Your task to perform on an android device: uninstall "PUBG MOBILE" Image 0: 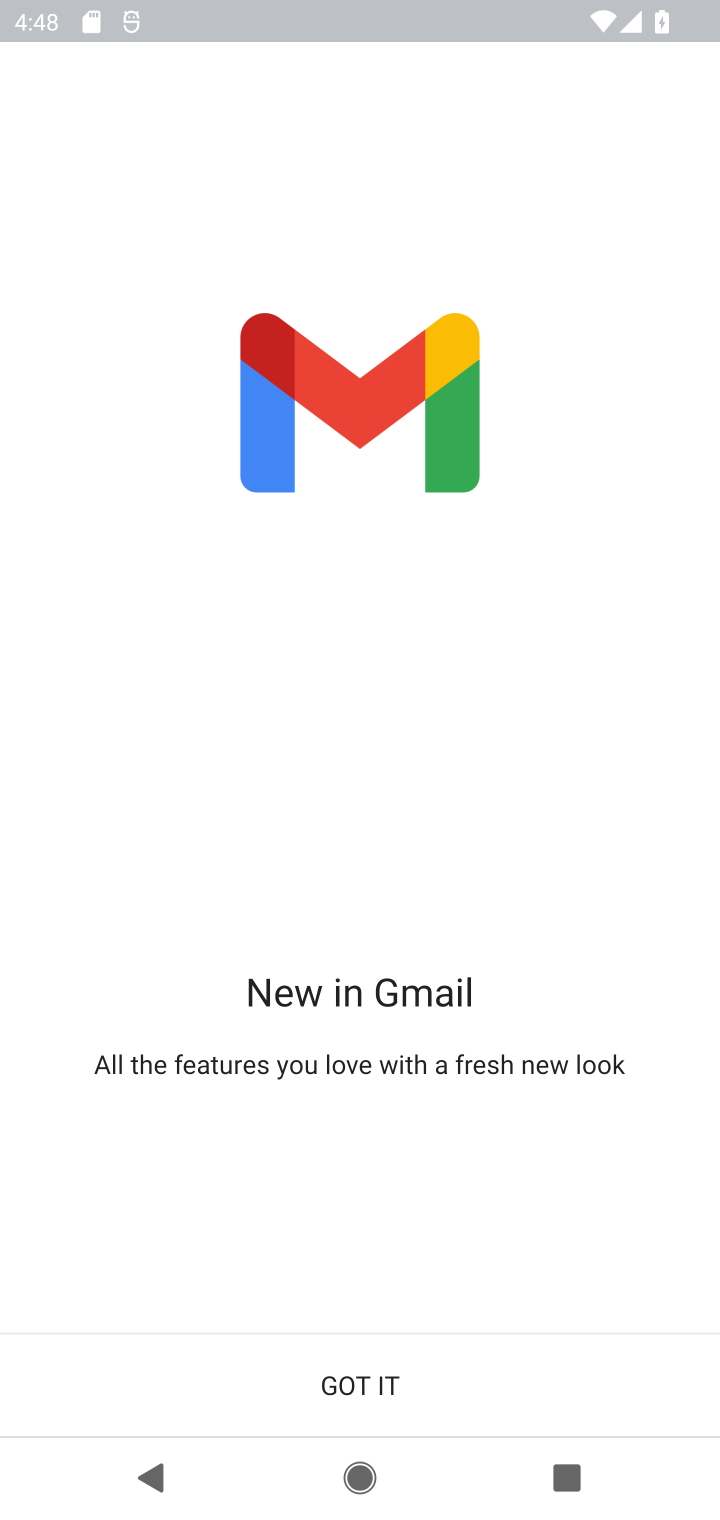
Step 0: press home button
Your task to perform on an android device: uninstall "PUBG MOBILE" Image 1: 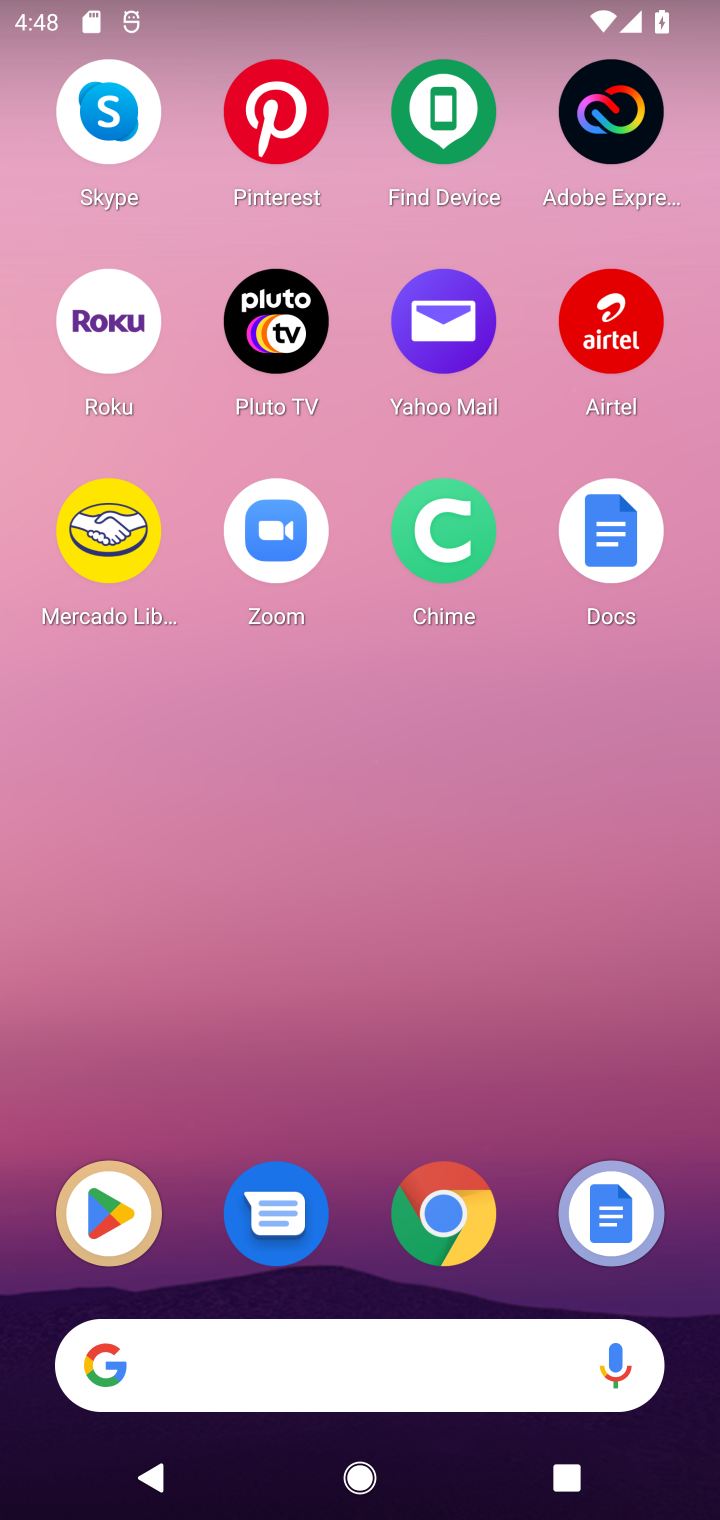
Step 1: drag from (577, 1063) to (426, 5)
Your task to perform on an android device: uninstall "PUBG MOBILE" Image 2: 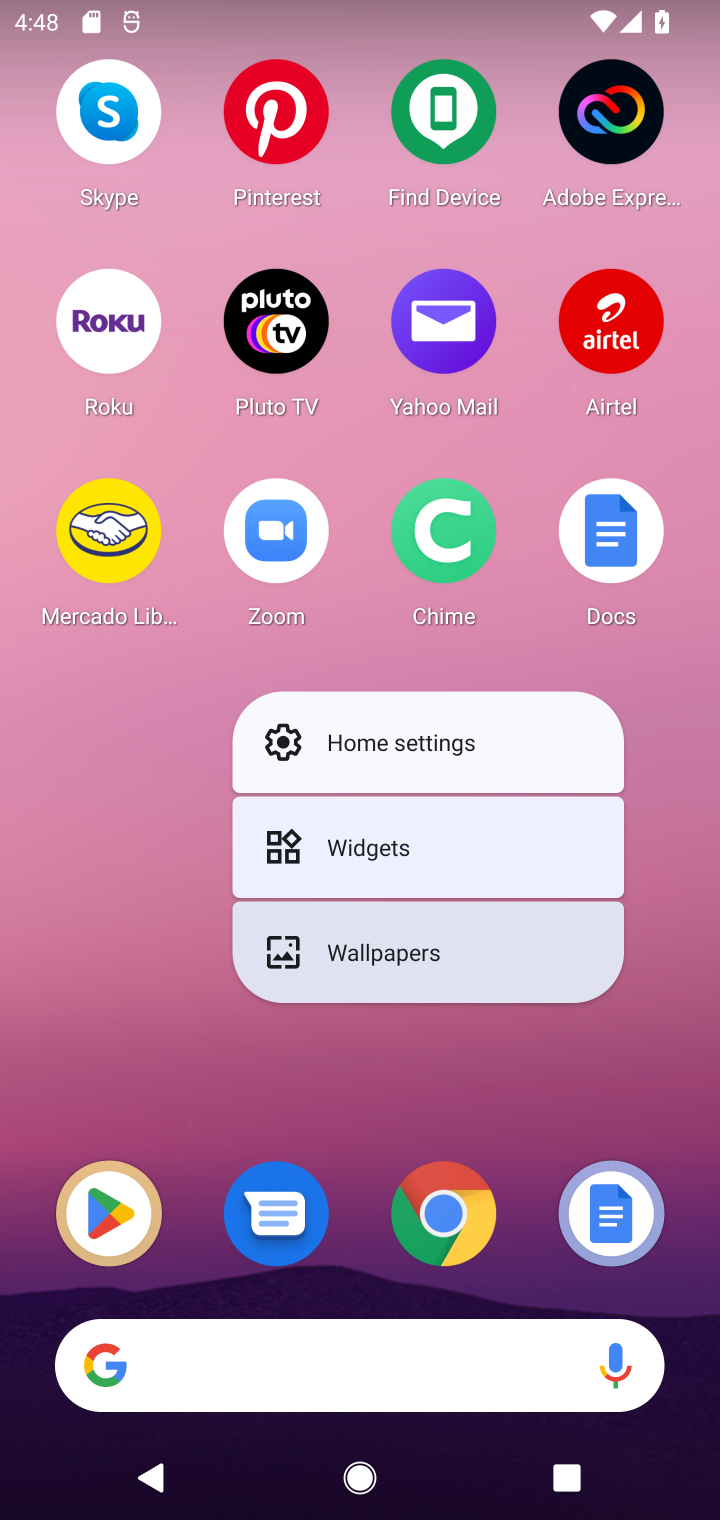
Step 2: click (51, 943)
Your task to perform on an android device: uninstall "PUBG MOBILE" Image 3: 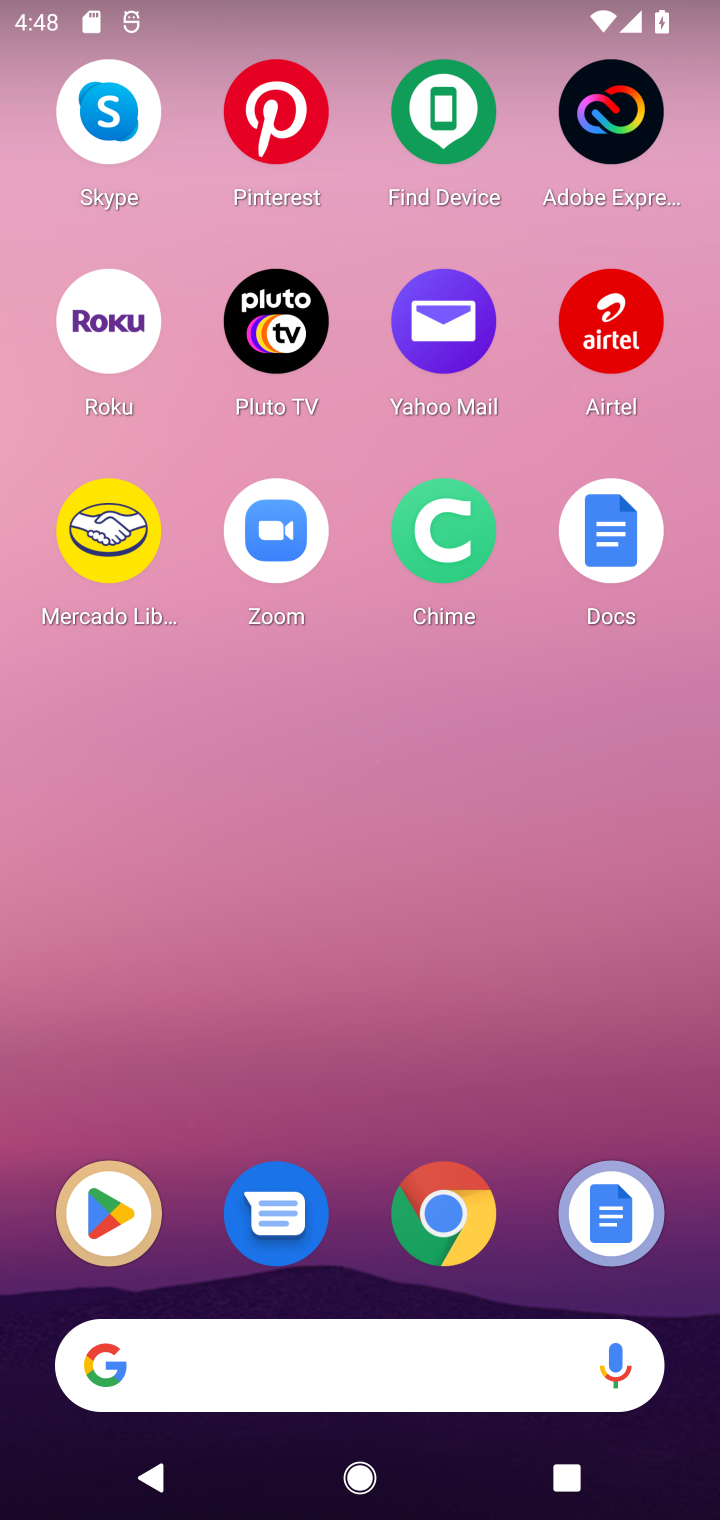
Step 3: drag from (541, 1126) to (432, 196)
Your task to perform on an android device: uninstall "PUBG MOBILE" Image 4: 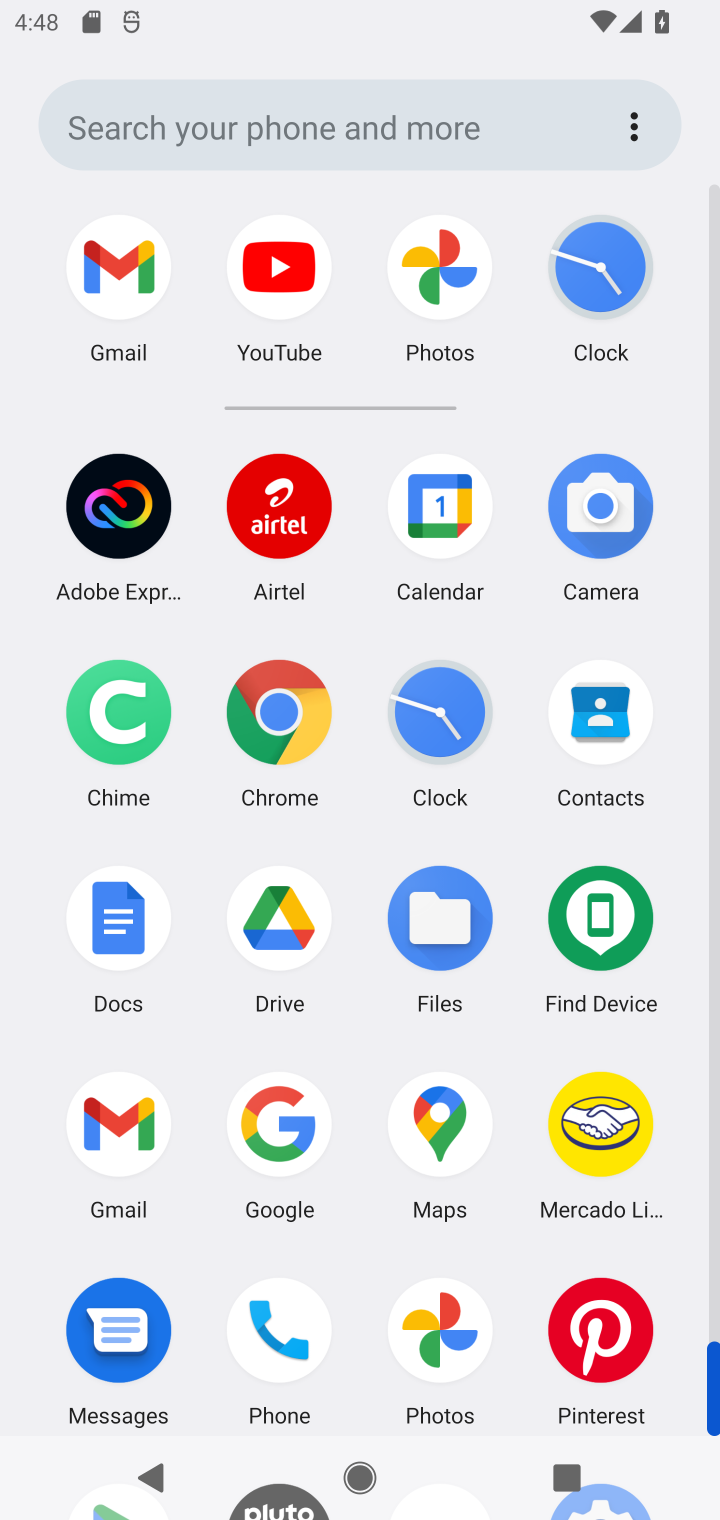
Step 4: drag from (354, 1252) to (386, 578)
Your task to perform on an android device: uninstall "PUBG MOBILE" Image 5: 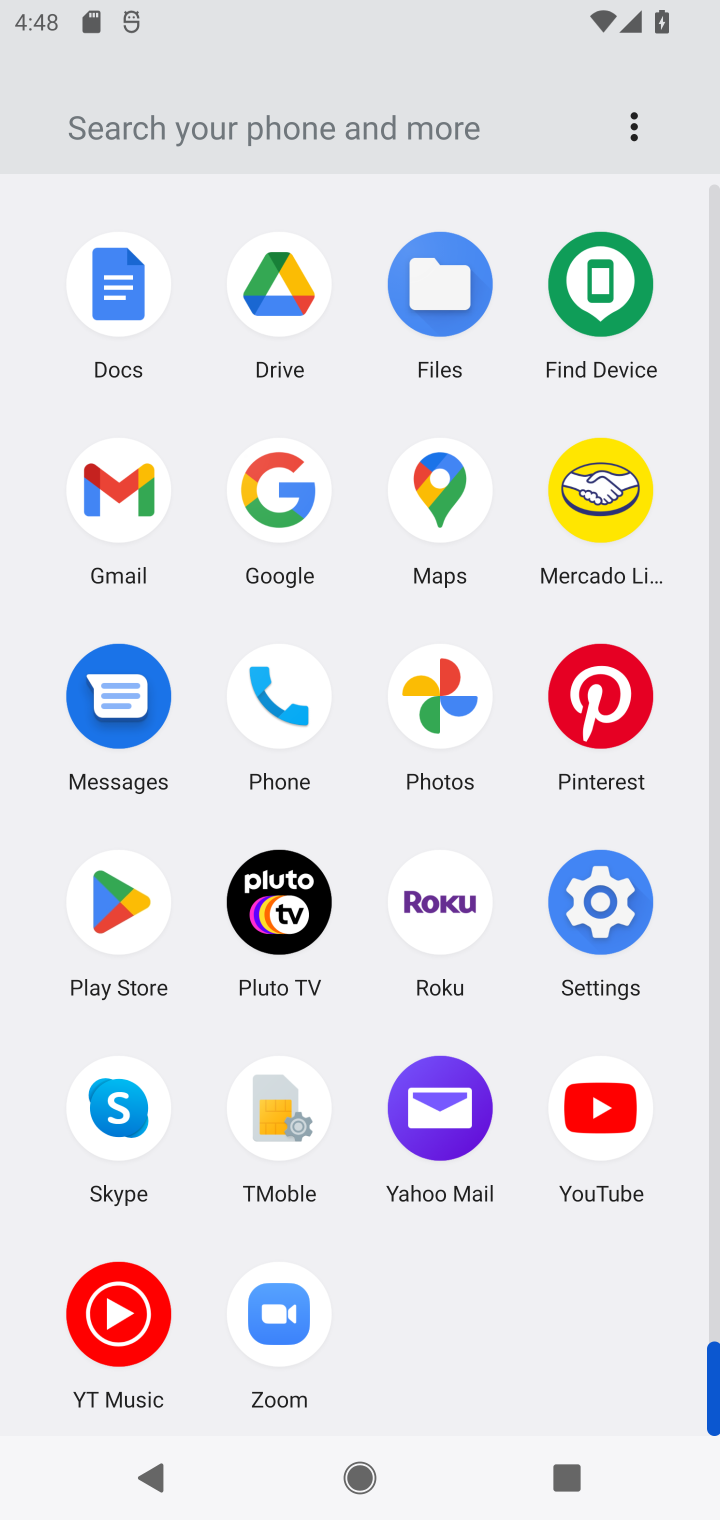
Step 5: click (124, 894)
Your task to perform on an android device: uninstall "PUBG MOBILE" Image 6: 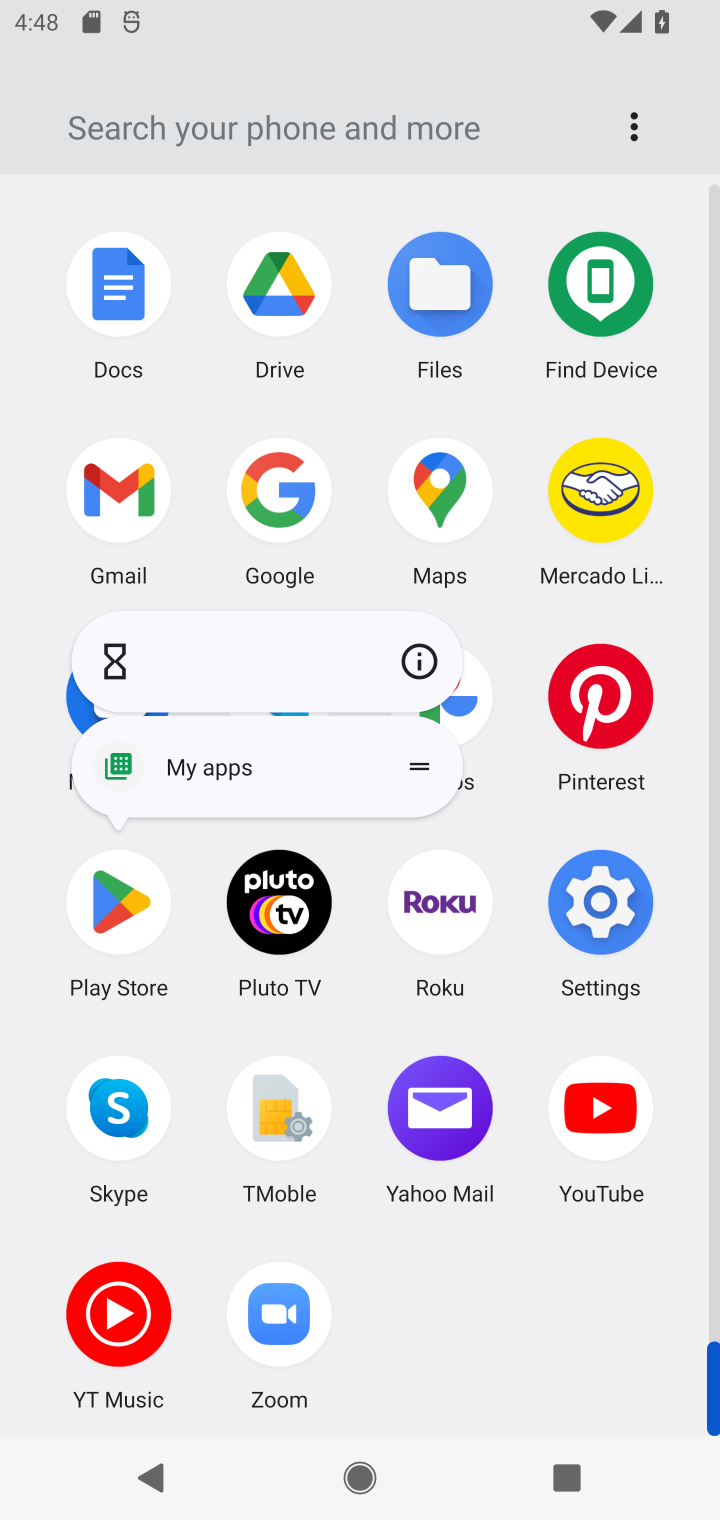
Step 6: click (127, 893)
Your task to perform on an android device: uninstall "PUBG MOBILE" Image 7: 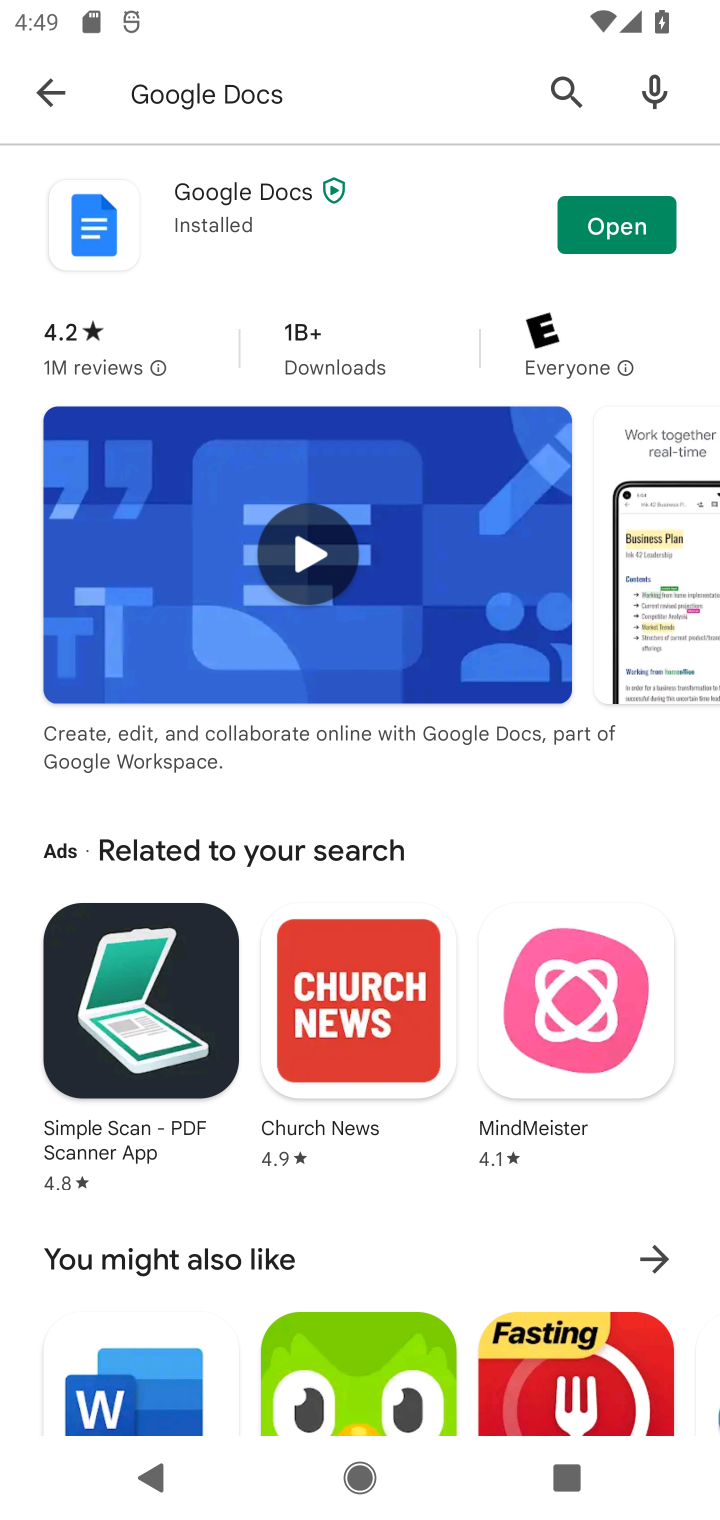
Step 7: click (538, 104)
Your task to perform on an android device: uninstall "PUBG MOBILE" Image 8: 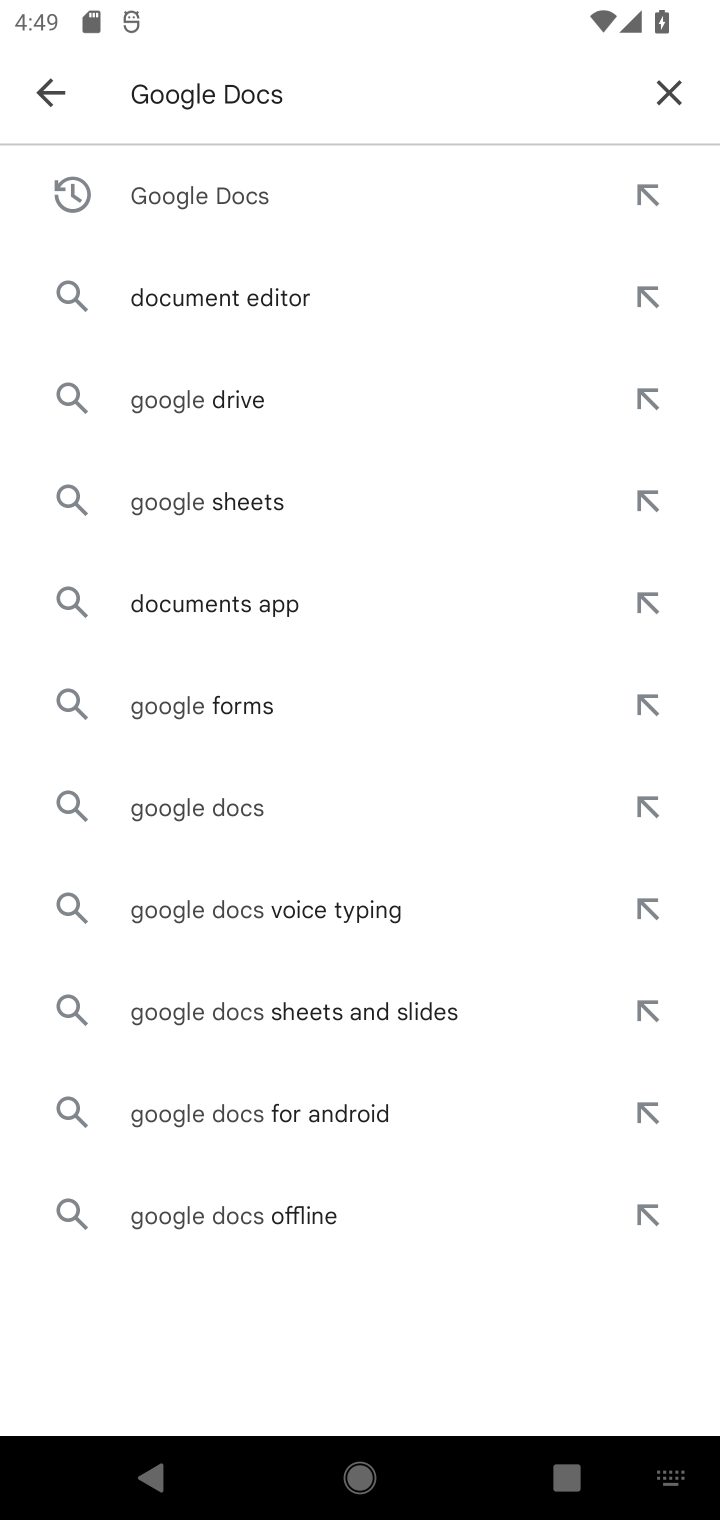
Step 8: click (679, 89)
Your task to perform on an android device: uninstall "PUBG MOBILE" Image 9: 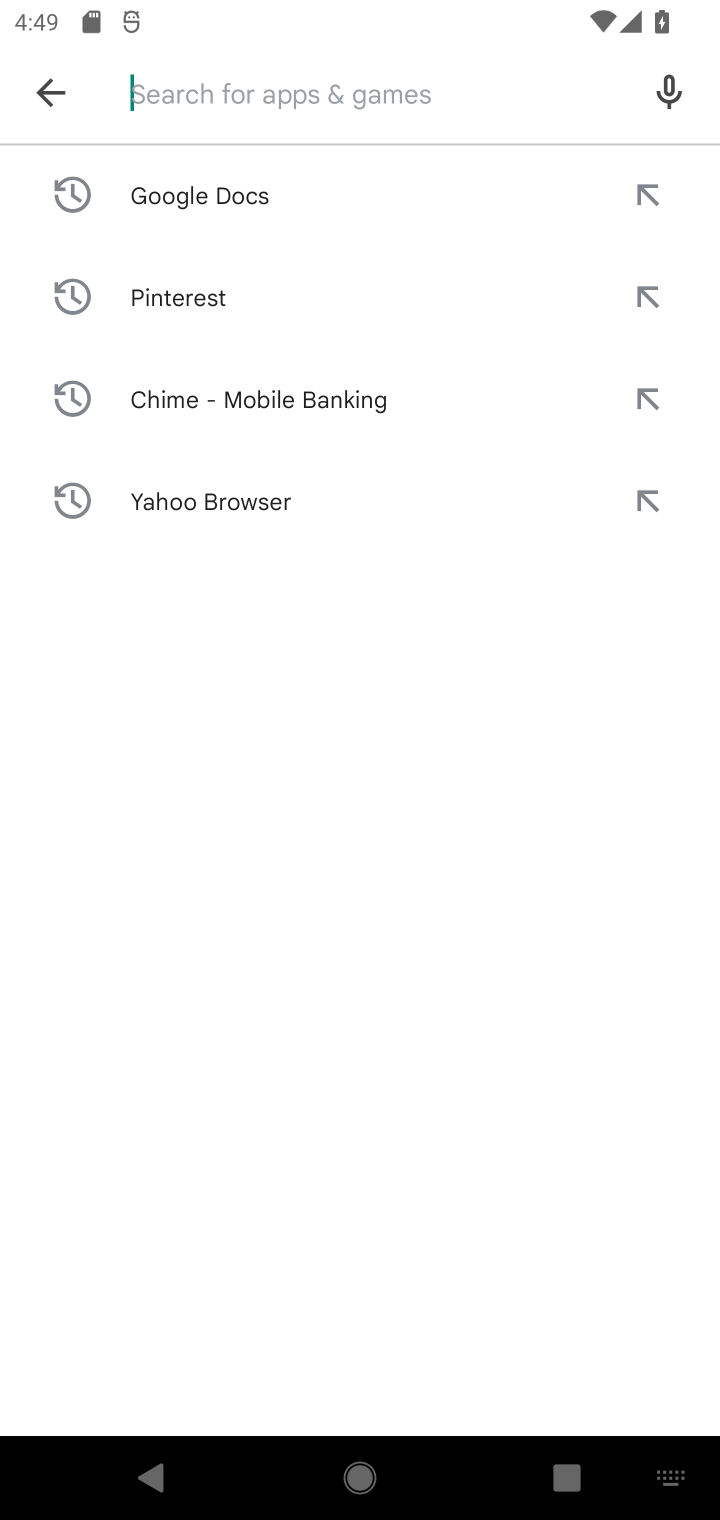
Step 9: type "PUBG MOBILE"
Your task to perform on an android device: uninstall "PUBG MOBILE" Image 10: 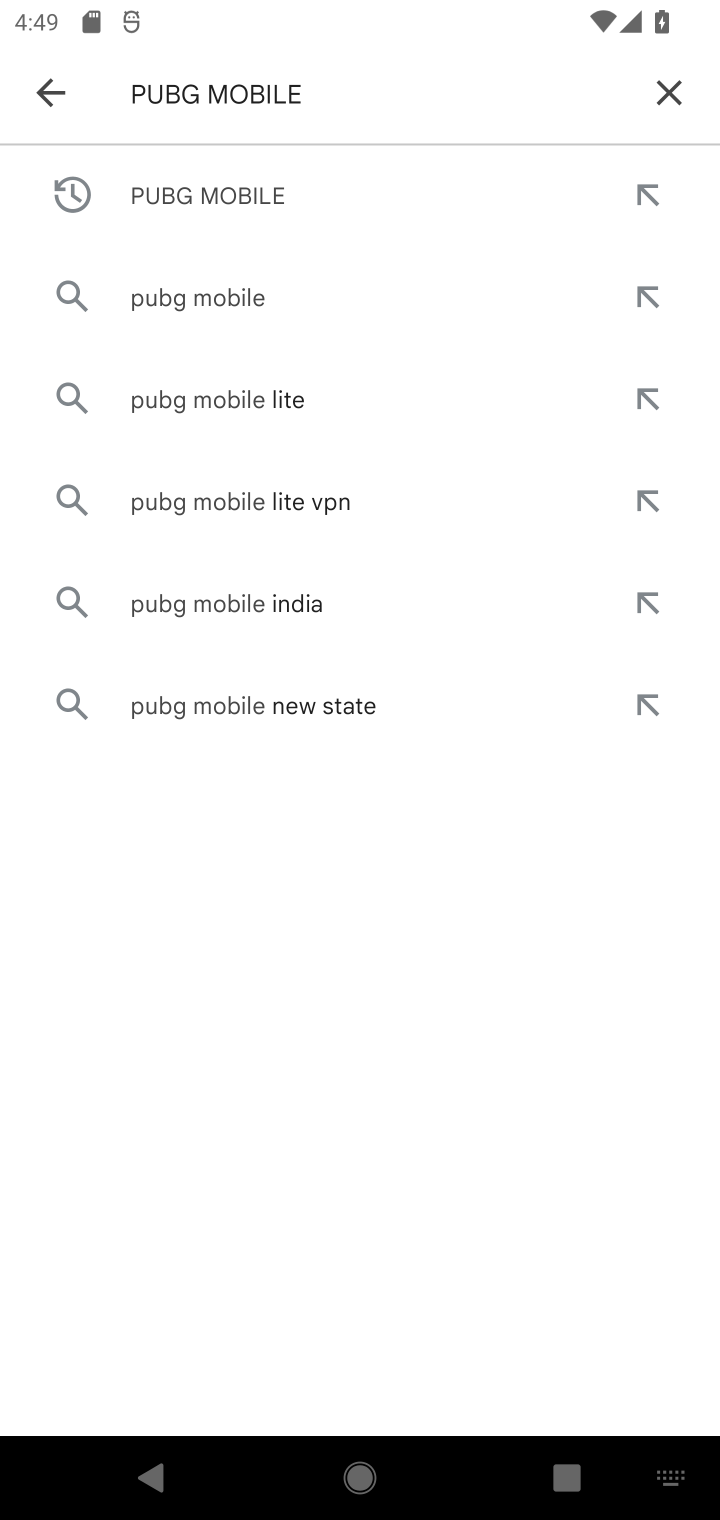
Step 10: press enter
Your task to perform on an android device: uninstall "PUBG MOBILE" Image 11: 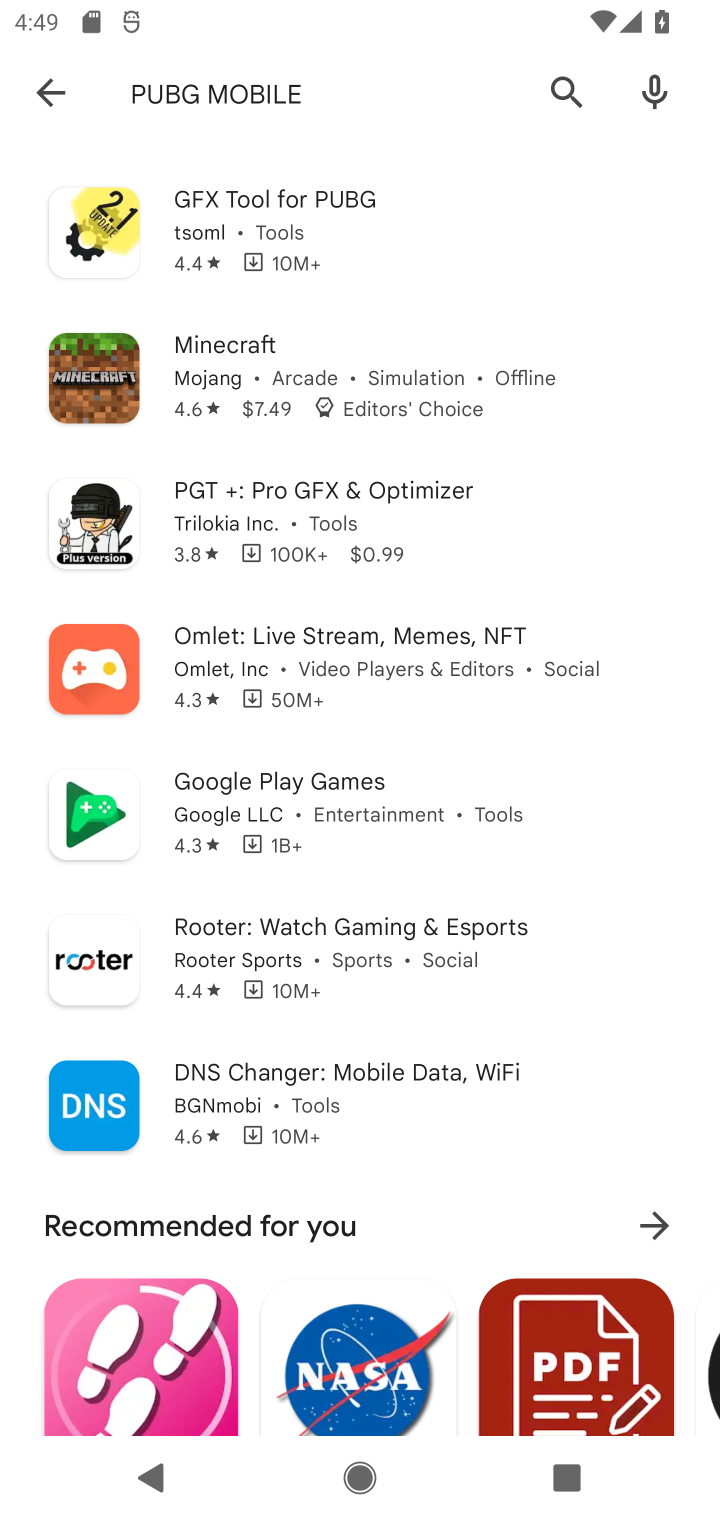
Step 11: task complete